Your task to perform on an android device: see sites visited before in the chrome app Image 0: 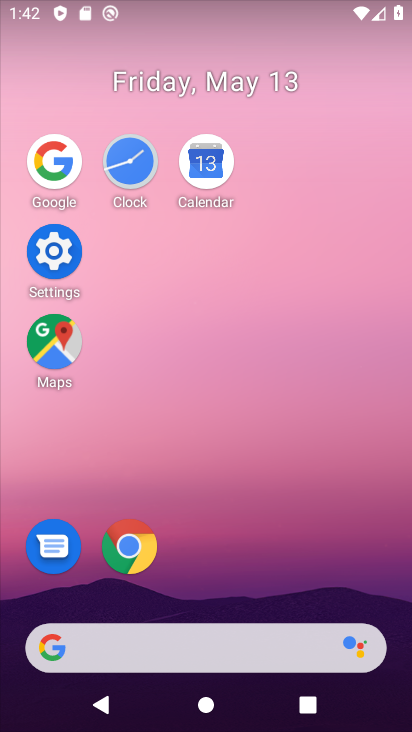
Step 0: click (125, 561)
Your task to perform on an android device: see sites visited before in the chrome app Image 1: 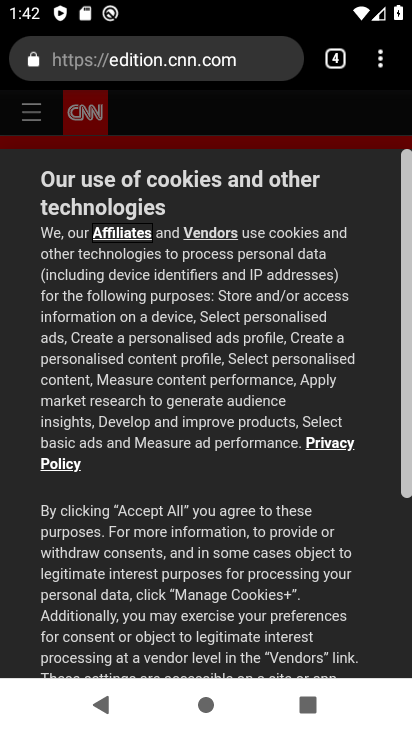
Step 1: click (379, 56)
Your task to perform on an android device: see sites visited before in the chrome app Image 2: 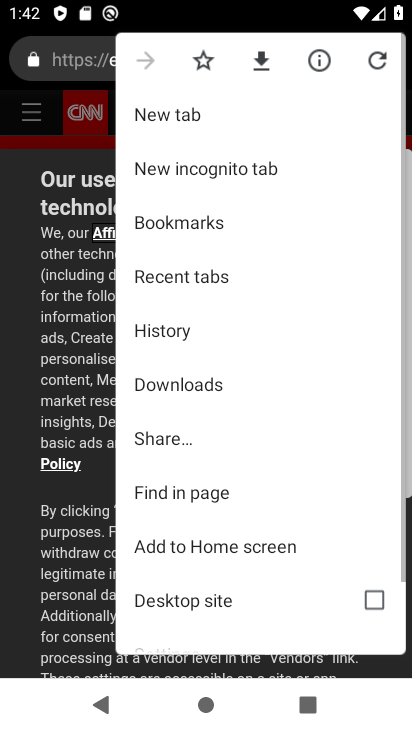
Step 2: click (262, 278)
Your task to perform on an android device: see sites visited before in the chrome app Image 3: 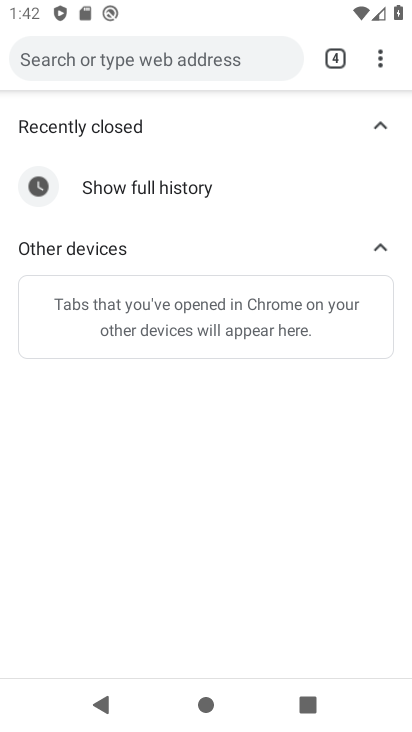
Step 3: task complete